Your task to perform on an android device: see creations saved in the google photos Image 0: 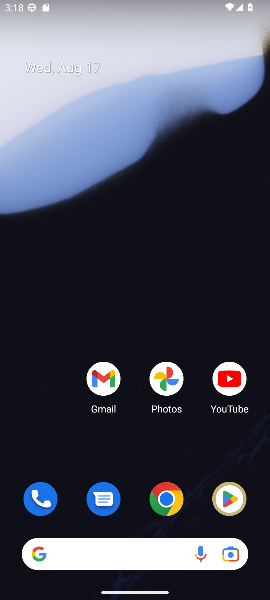
Step 0: drag from (148, 461) to (193, 2)
Your task to perform on an android device: see creations saved in the google photos Image 1: 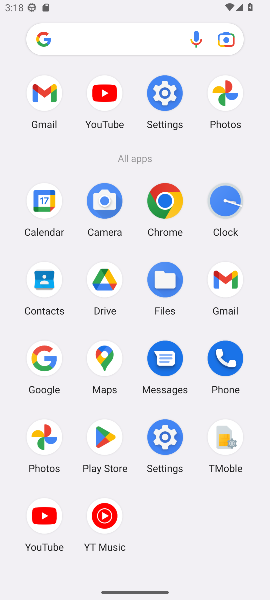
Step 1: click (42, 434)
Your task to perform on an android device: see creations saved in the google photos Image 2: 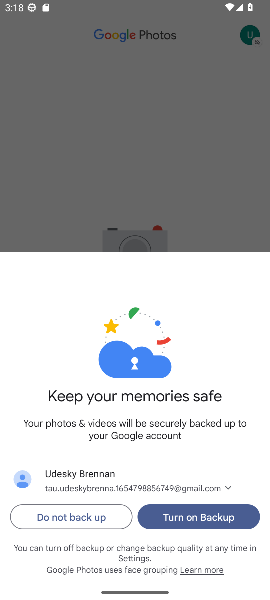
Step 2: click (187, 519)
Your task to perform on an android device: see creations saved in the google photos Image 3: 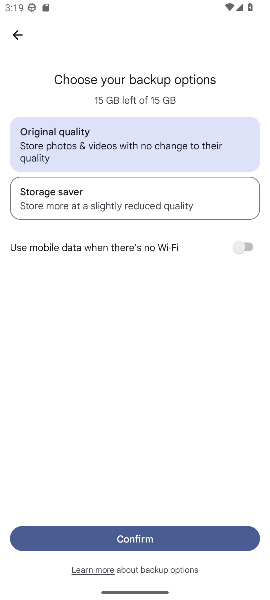
Step 3: click (80, 187)
Your task to perform on an android device: see creations saved in the google photos Image 4: 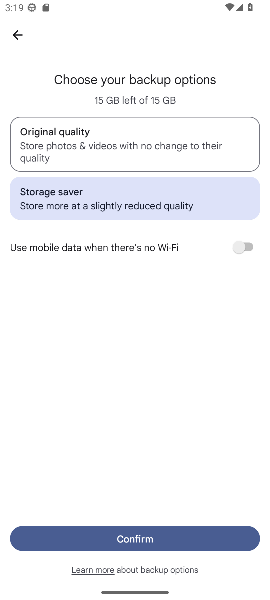
Step 4: click (185, 543)
Your task to perform on an android device: see creations saved in the google photos Image 5: 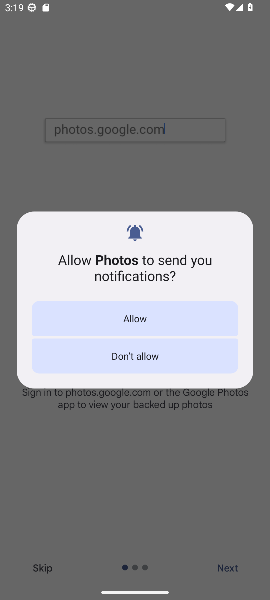
Step 5: click (177, 313)
Your task to perform on an android device: see creations saved in the google photos Image 6: 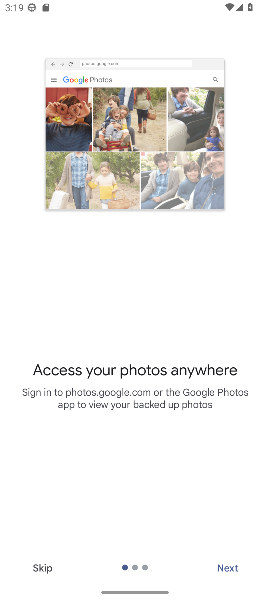
Step 6: click (225, 566)
Your task to perform on an android device: see creations saved in the google photos Image 7: 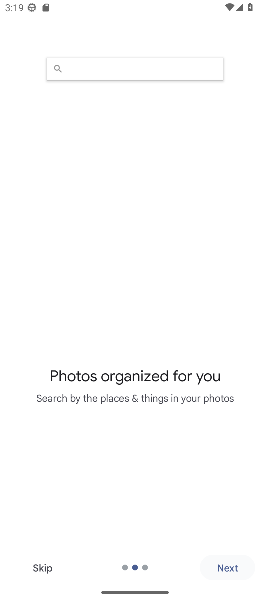
Step 7: click (225, 566)
Your task to perform on an android device: see creations saved in the google photos Image 8: 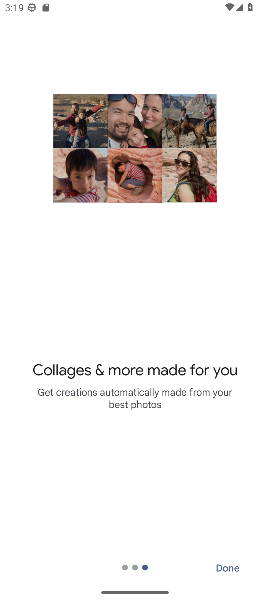
Step 8: click (225, 566)
Your task to perform on an android device: see creations saved in the google photos Image 9: 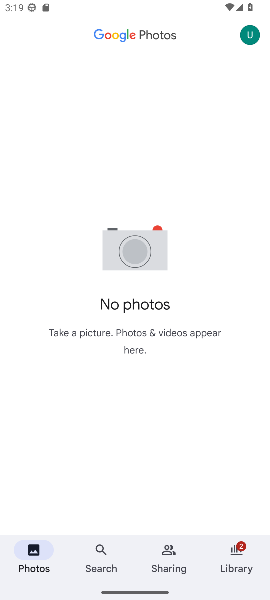
Step 9: click (87, 545)
Your task to perform on an android device: see creations saved in the google photos Image 10: 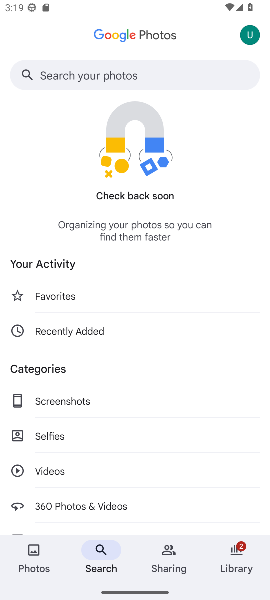
Step 10: drag from (105, 395) to (138, 102)
Your task to perform on an android device: see creations saved in the google photos Image 11: 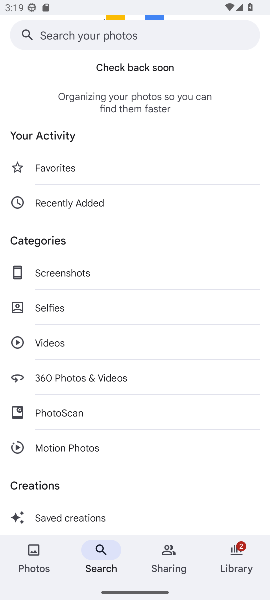
Step 11: click (82, 513)
Your task to perform on an android device: see creations saved in the google photos Image 12: 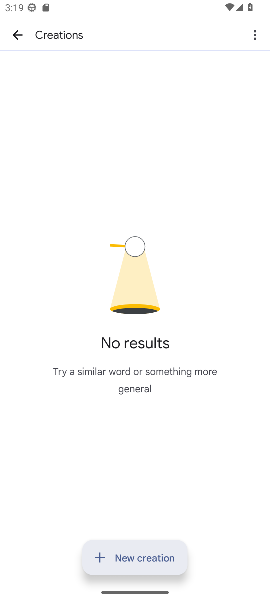
Step 12: task complete